Your task to perform on an android device: View the shopping cart on ebay. Search for dell xps on ebay, select the first entry, and add it to the cart. Image 0: 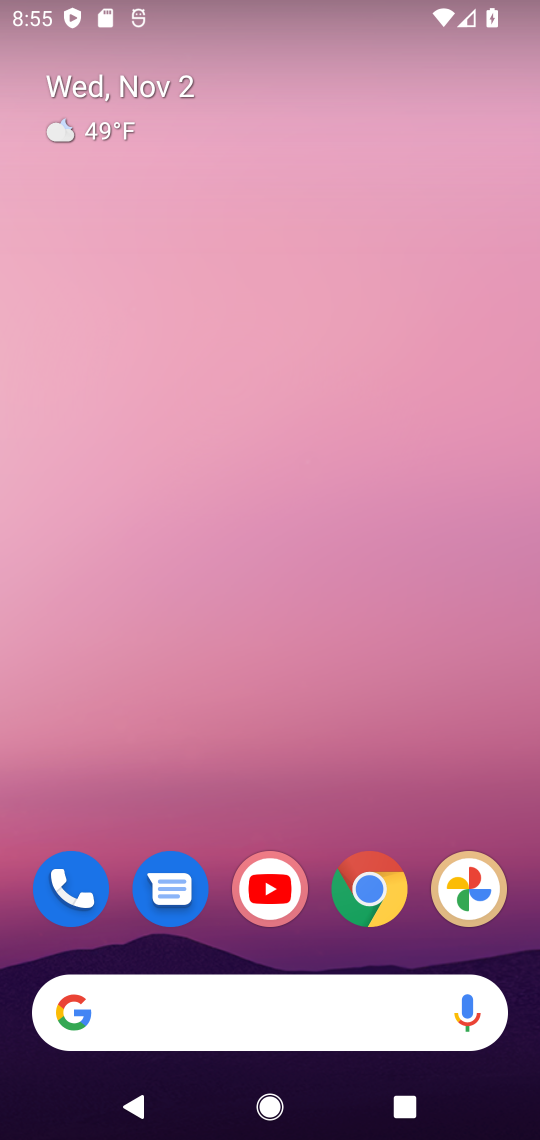
Step 0: drag from (298, 822) to (312, 66)
Your task to perform on an android device: View the shopping cart on ebay. Search for dell xps on ebay, select the first entry, and add it to the cart. Image 1: 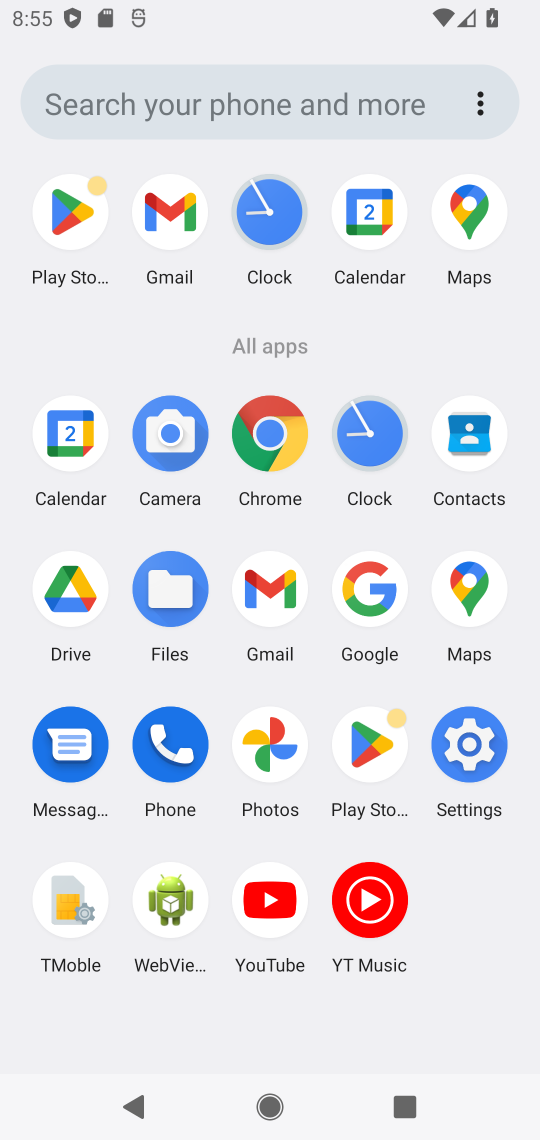
Step 1: click (264, 441)
Your task to perform on an android device: View the shopping cart on ebay. Search for dell xps on ebay, select the first entry, and add it to the cart. Image 2: 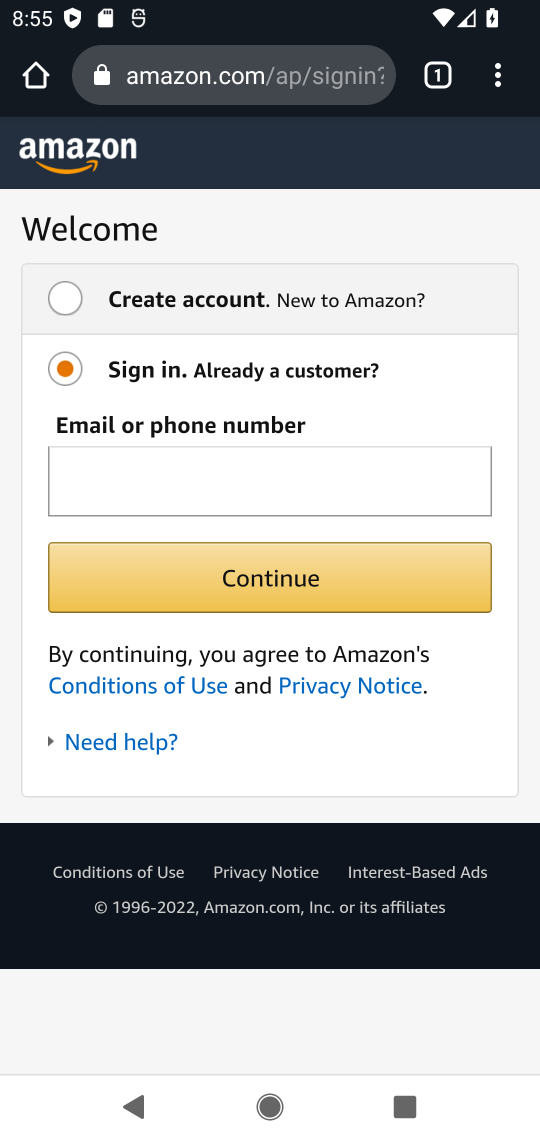
Step 2: click (212, 90)
Your task to perform on an android device: View the shopping cart on ebay. Search for dell xps on ebay, select the first entry, and add it to the cart. Image 3: 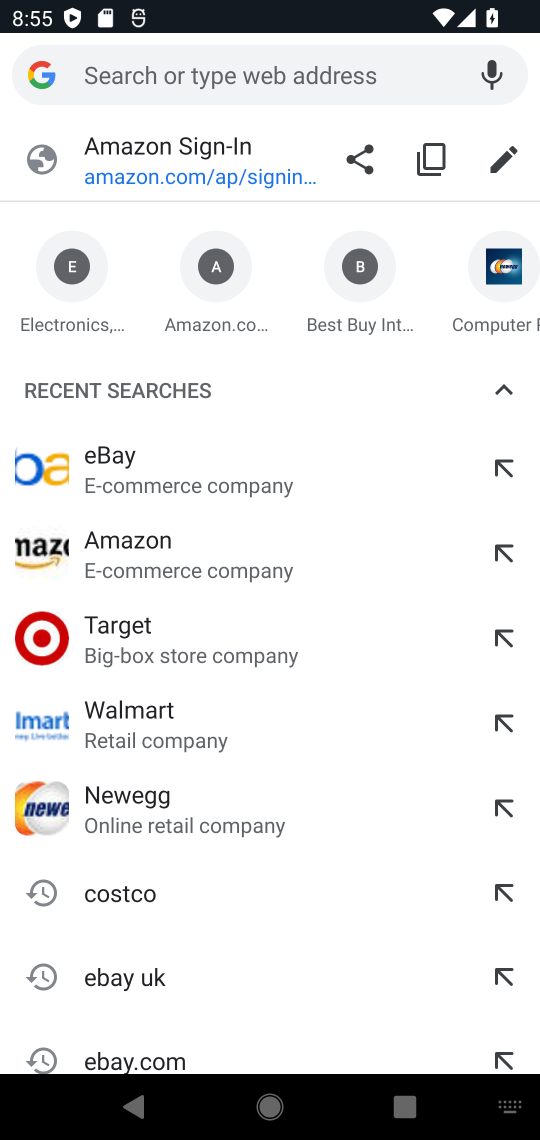
Step 3: click (208, 154)
Your task to perform on an android device: View the shopping cart on ebay. Search for dell xps on ebay, select the first entry, and add it to the cart. Image 4: 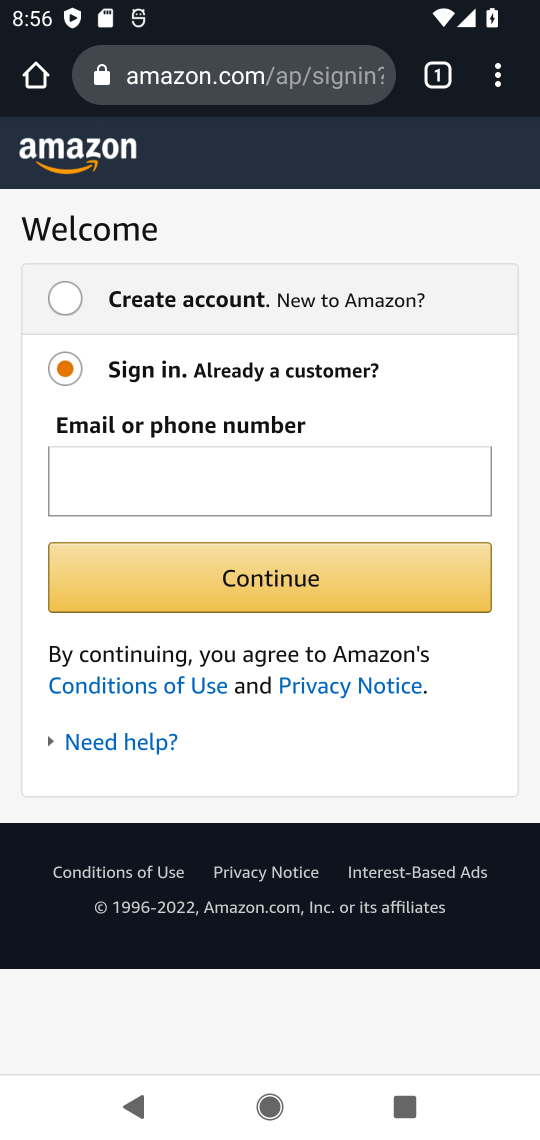
Step 4: press back button
Your task to perform on an android device: View the shopping cart on ebay. Search for dell xps on ebay, select the first entry, and add it to the cart. Image 5: 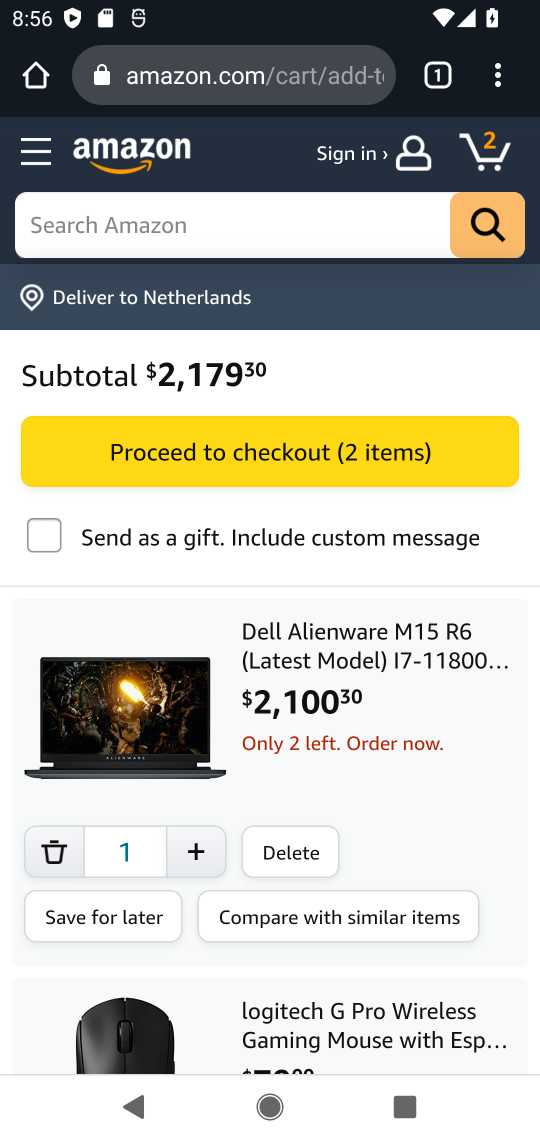
Step 5: click (144, 226)
Your task to perform on an android device: View the shopping cart on ebay. Search for dell xps on ebay, select the first entry, and add it to the cart. Image 6: 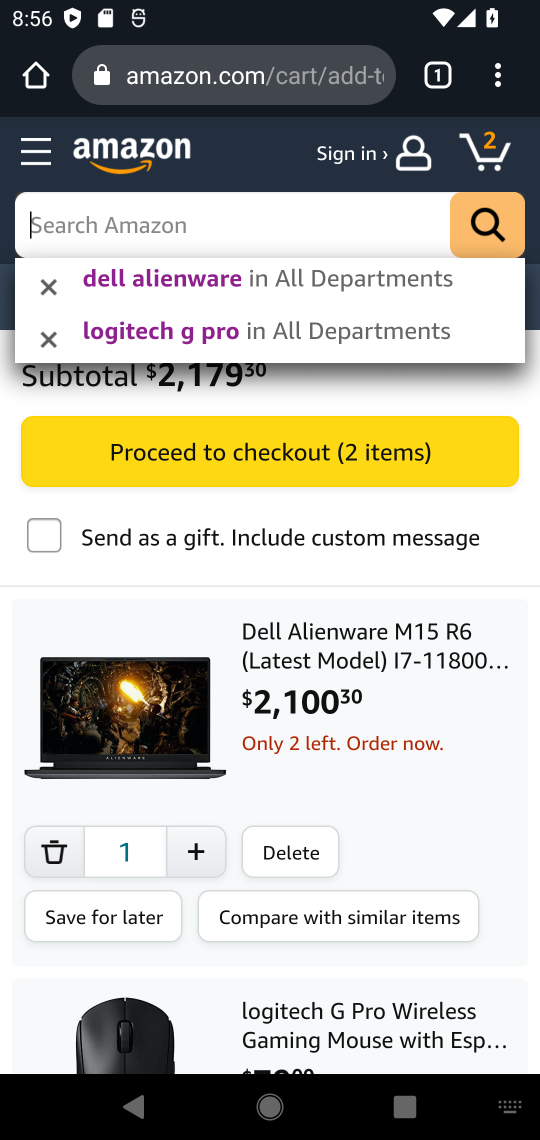
Step 6: type "dell xps"
Your task to perform on an android device: View the shopping cart on ebay. Search for dell xps on ebay, select the first entry, and add it to the cart. Image 7: 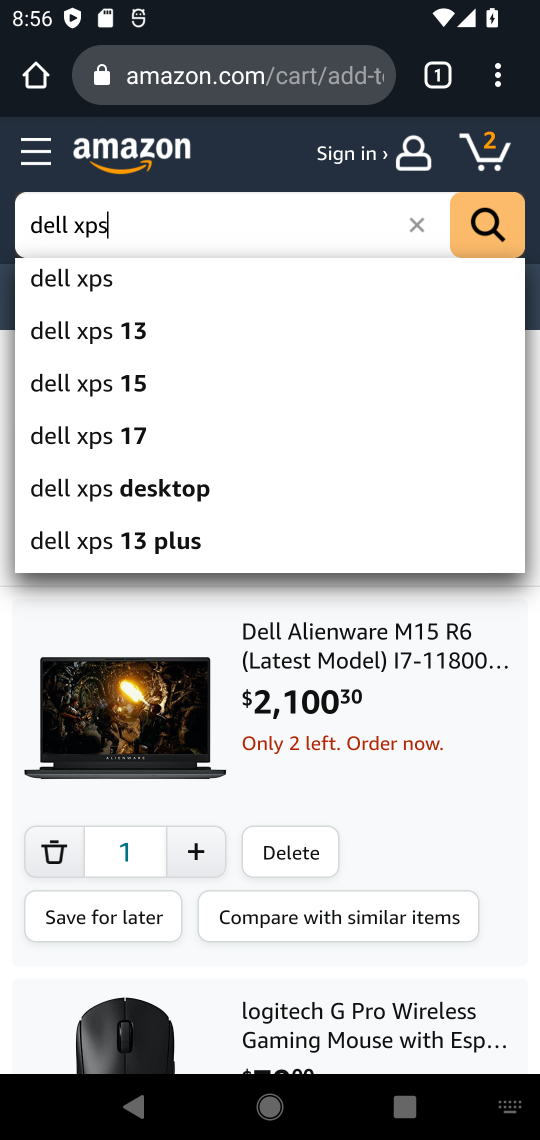
Step 7: click (73, 275)
Your task to perform on an android device: View the shopping cart on ebay. Search for dell xps on ebay, select the first entry, and add it to the cart. Image 8: 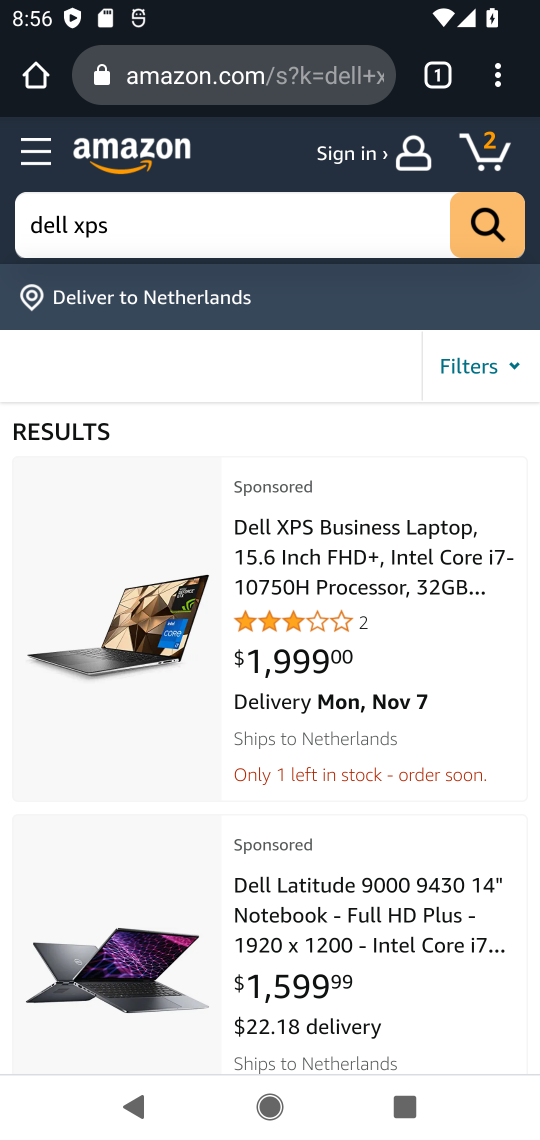
Step 8: click (291, 590)
Your task to perform on an android device: View the shopping cart on ebay. Search for dell xps on ebay, select the first entry, and add it to the cart. Image 9: 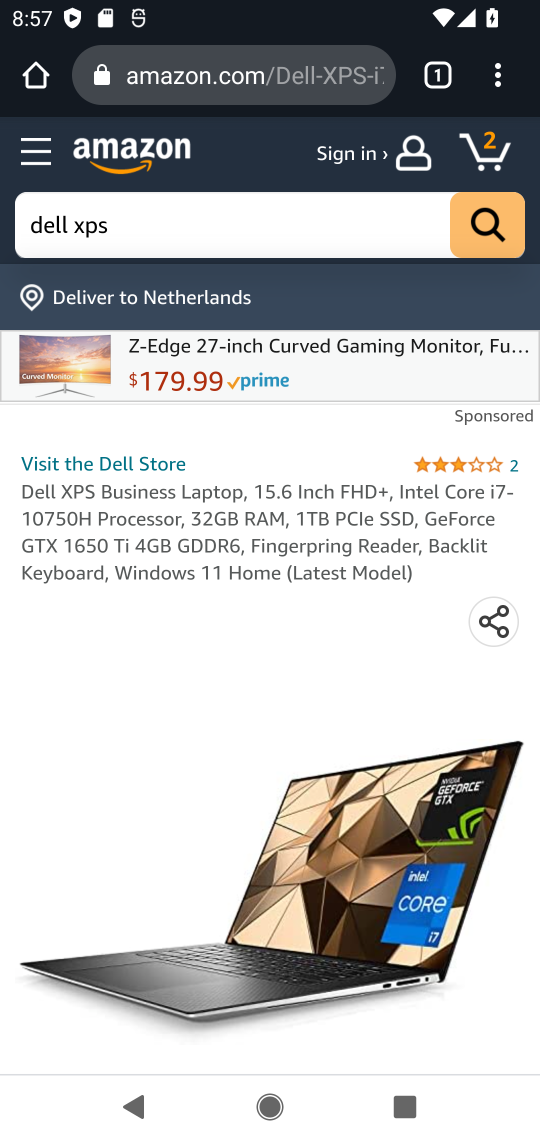
Step 9: drag from (167, 855) to (261, 249)
Your task to perform on an android device: View the shopping cart on ebay. Search for dell xps on ebay, select the first entry, and add it to the cart. Image 10: 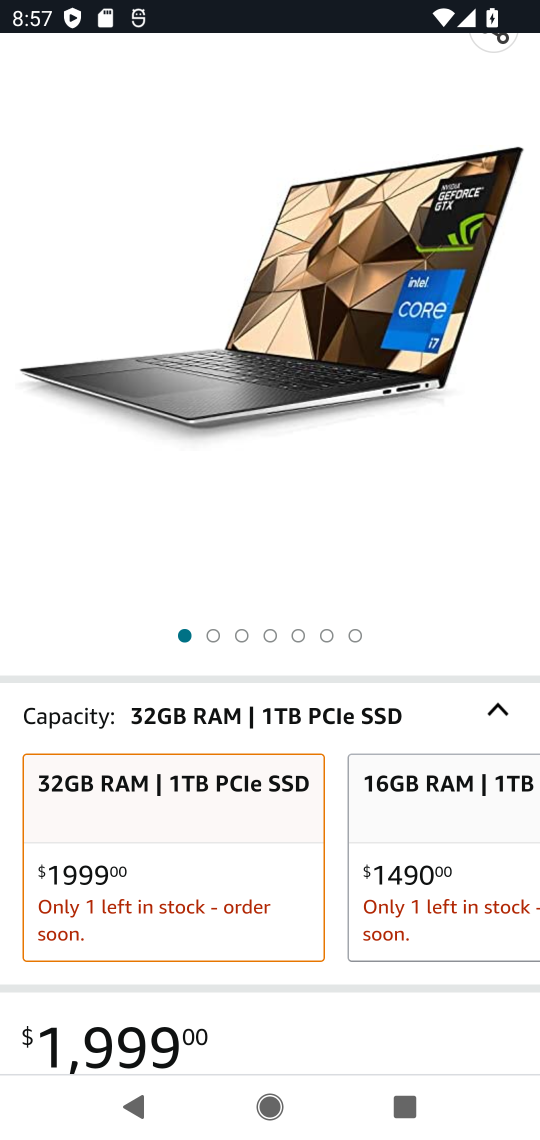
Step 10: drag from (323, 977) to (431, 58)
Your task to perform on an android device: View the shopping cart on ebay. Search for dell xps on ebay, select the first entry, and add it to the cart. Image 11: 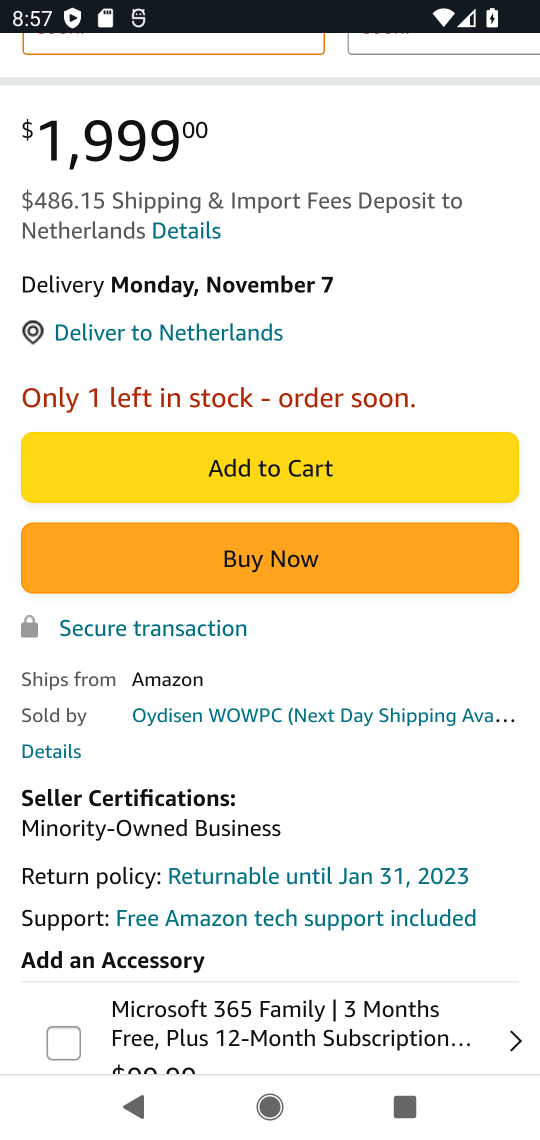
Step 11: click (255, 475)
Your task to perform on an android device: View the shopping cart on ebay. Search for dell xps on ebay, select the first entry, and add it to the cart. Image 12: 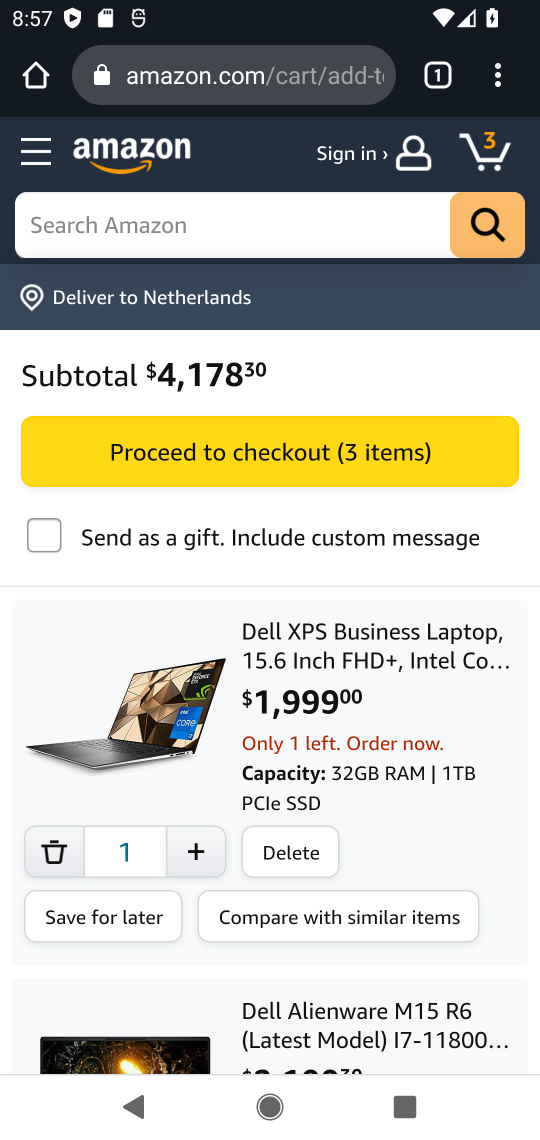
Step 12: task complete